Your task to perform on an android device: show emergency info Image 0: 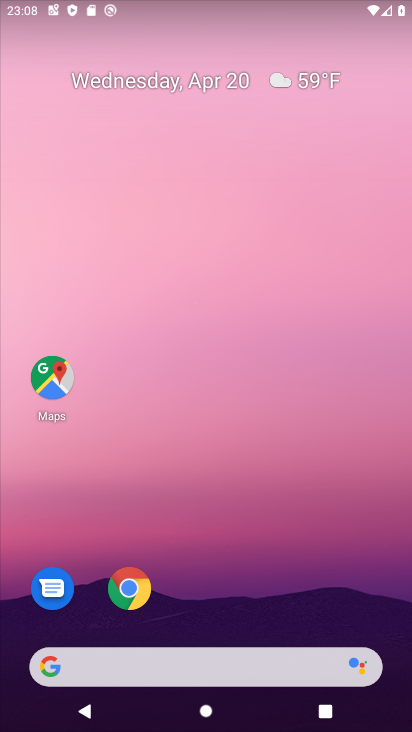
Step 0: drag from (219, 727) to (219, 133)
Your task to perform on an android device: show emergency info Image 1: 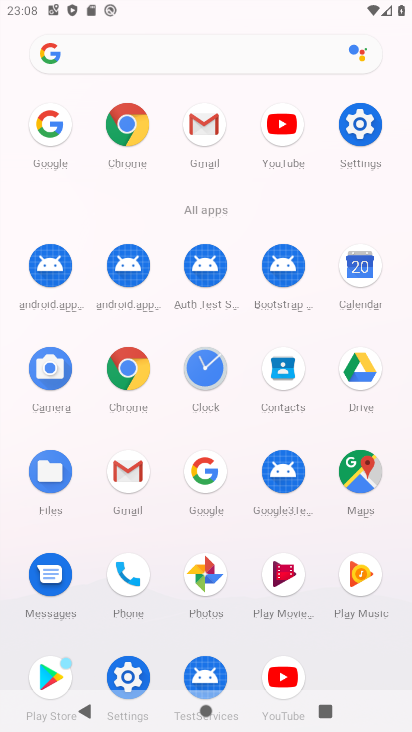
Step 1: click (366, 123)
Your task to perform on an android device: show emergency info Image 2: 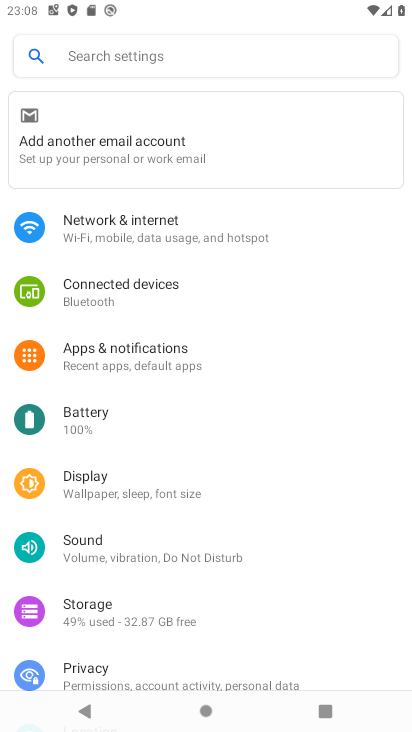
Step 2: drag from (137, 653) to (135, 247)
Your task to perform on an android device: show emergency info Image 3: 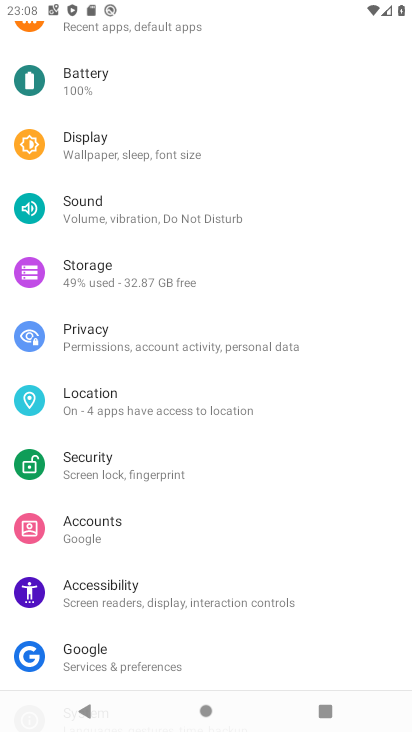
Step 3: drag from (174, 642) to (167, 203)
Your task to perform on an android device: show emergency info Image 4: 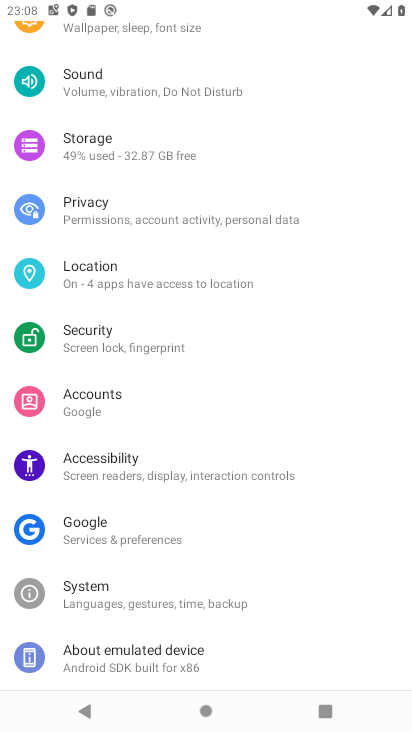
Step 4: click (152, 659)
Your task to perform on an android device: show emergency info Image 5: 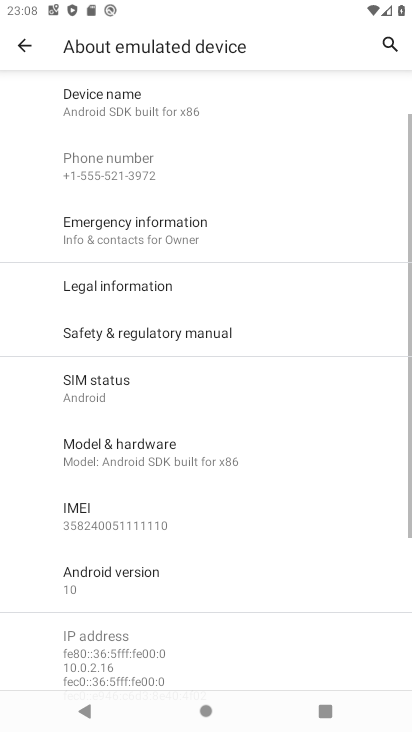
Step 5: click (151, 225)
Your task to perform on an android device: show emergency info Image 6: 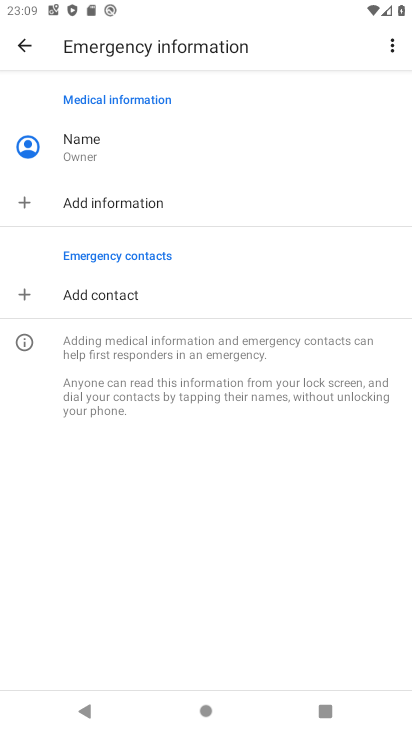
Step 6: task complete